Your task to perform on an android device: turn off smart reply in the gmail app Image 0: 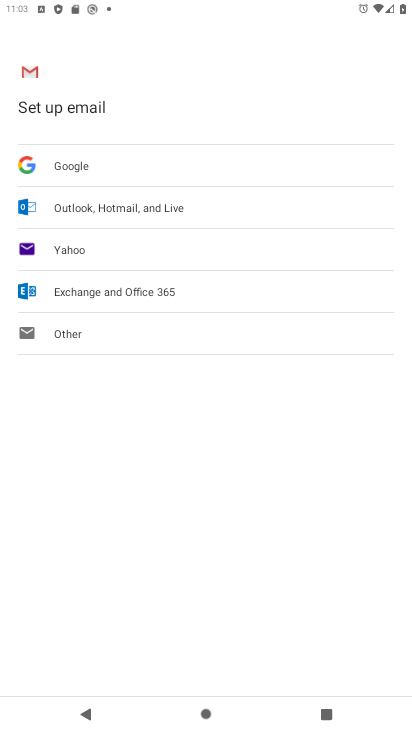
Step 0: press home button
Your task to perform on an android device: turn off smart reply in the gmail app Image 1: 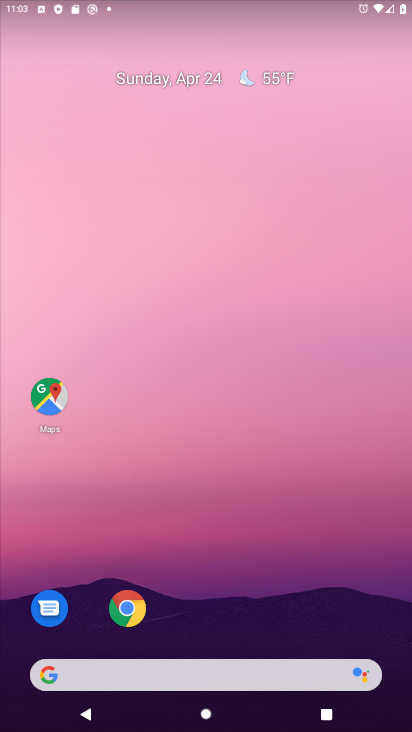
Step 1: drag from (352, 633) to (296, 95)
Your task to perform on an android device: turn off smart reply in the gmail app Image 2: 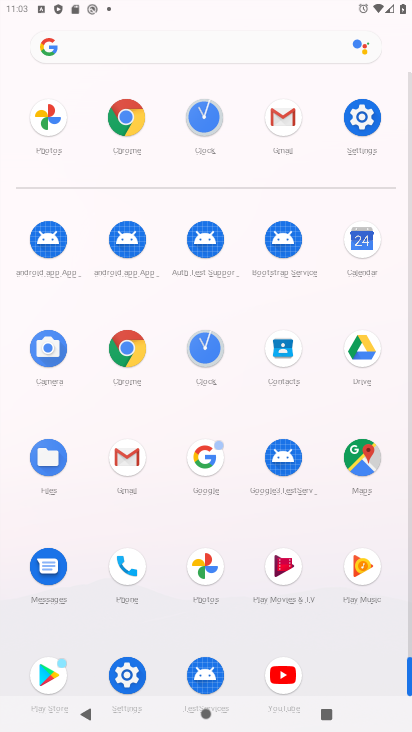
Step 2: click (407, 648)
Your task to perform on an android device: turn off smart reply in the gmail app Image 3: 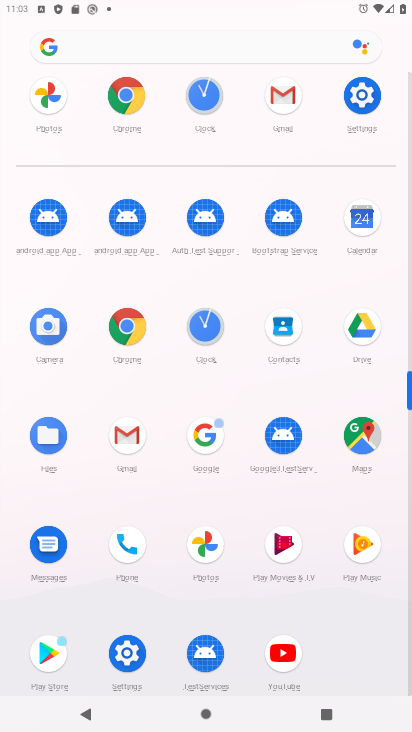
Step 3: click (123, 435)
Your task to perform on an android device: turn off smart reply in the gmail app Image 4: 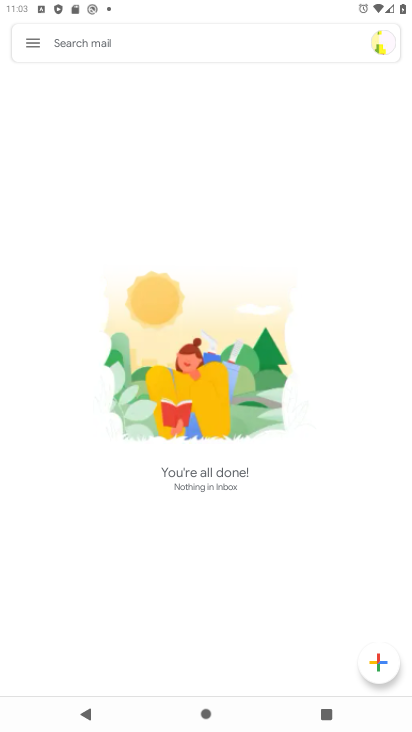
Step 4: click (31, 41)
Your task to perform on an android device: turn off smart reply in the gmail app Image 5: 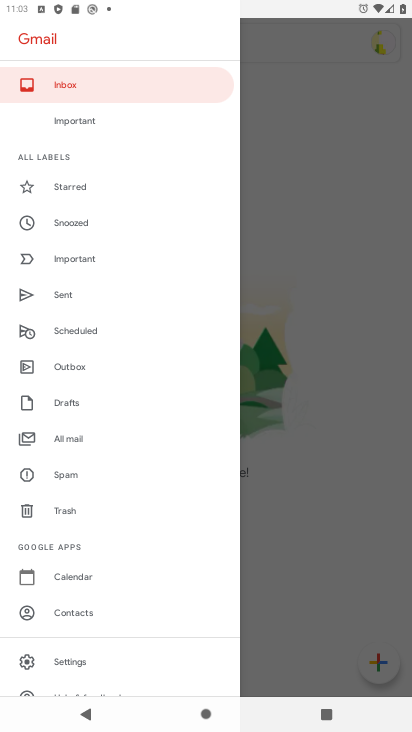
Step 5: click (66, 661)
Your task to perform on an android device: turn off smart reply in the gmail app Image 6: 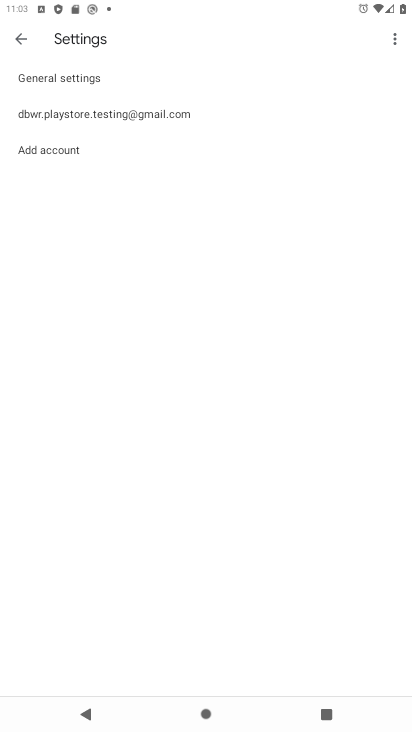
Step 6: click (111, 116)
Your task to perform on an android device: turn off smart reply in the gmail app Image 7: 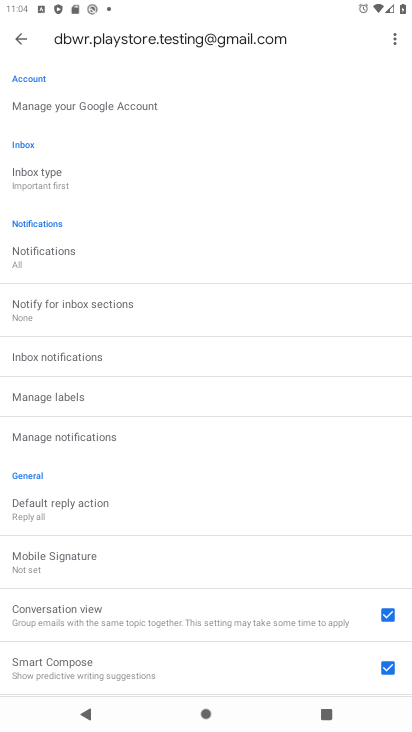
Step 7: drag from (283, 501) to (290, 240)
Your task to perform on an android device: turn off smart reply in the gmail app Image 8: 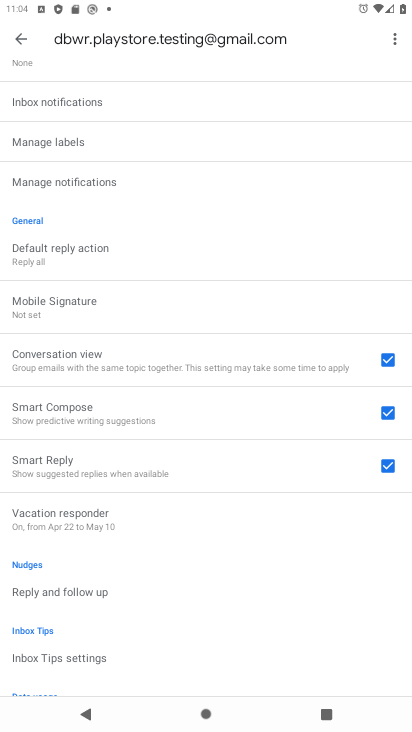
Step 8: click (387, 462)
Your task to perform on an android device: turn off smart reply in the gmail app Image 9: 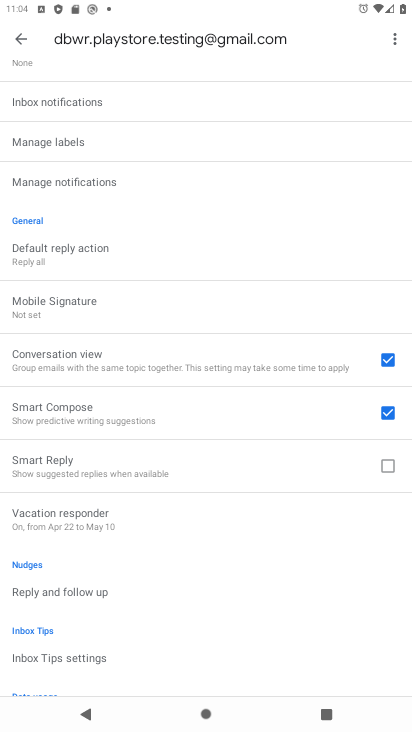
Step 9: task complete